Your task to perform on an android device: Play the last video I watched on Youtube Image 0: 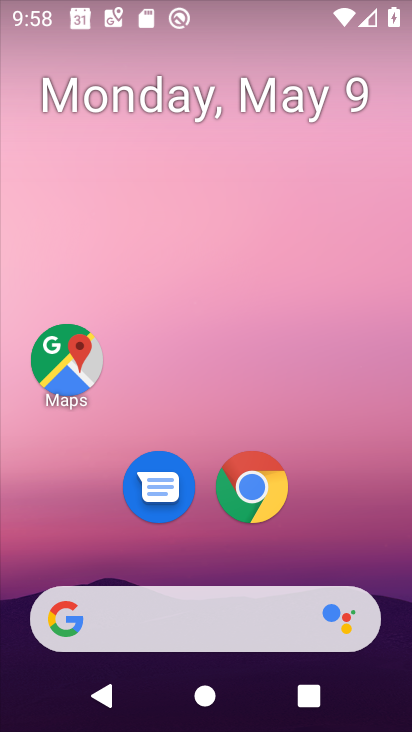
Step 0: drag from (360, 516) to (276, 0)
Your task to perform on an android device: Play the last video I watched on Youtube Image 1: 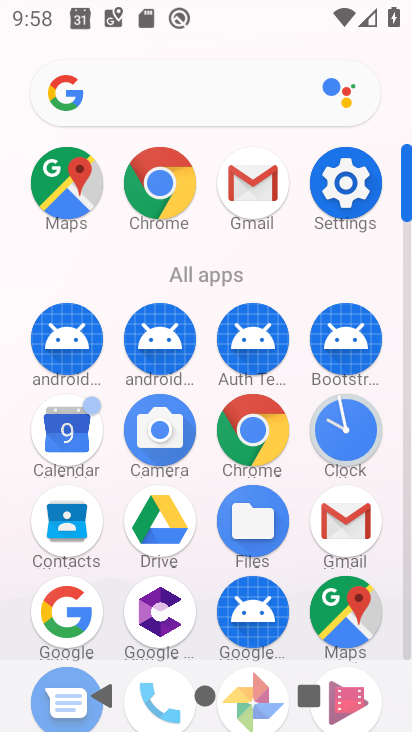
Step 1: drag from (25, 588) to (15, 222)
Your task to perform on an android device: Play the last video I watched on Youtube Image 2: 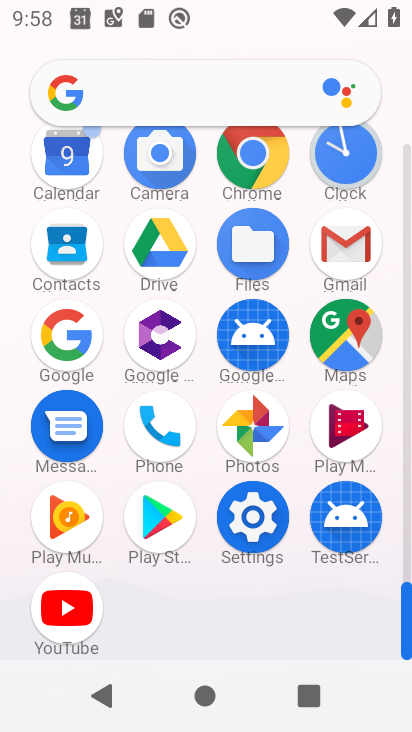
Step 2: click (68, 600)
Your task to perform on an android device: Play the last video I watched on Youtube Image 3: 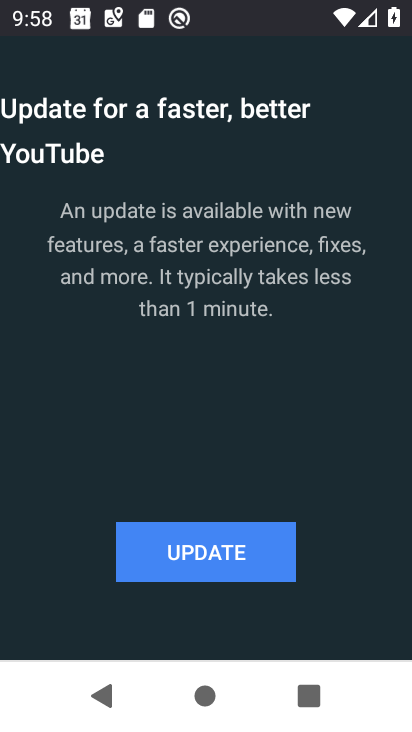
Step 3: click (180, 542)
Your task to perform on an android device: Play the last video I watched on Youtube Image 4: 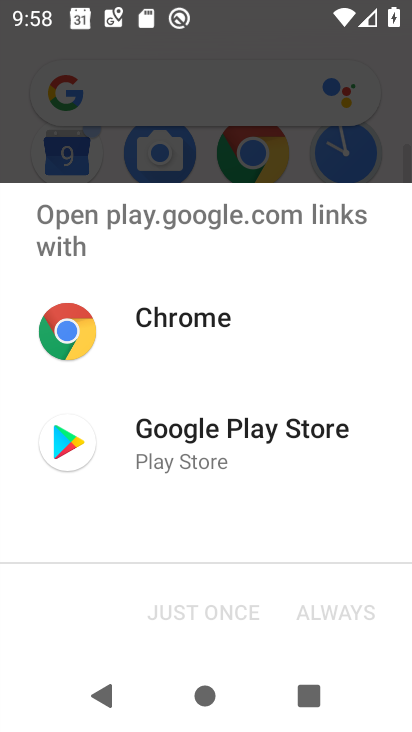
Step 4: click (218, 441)
Your task to perform on an android device: Play the last video I watched on Youtube Image 5: 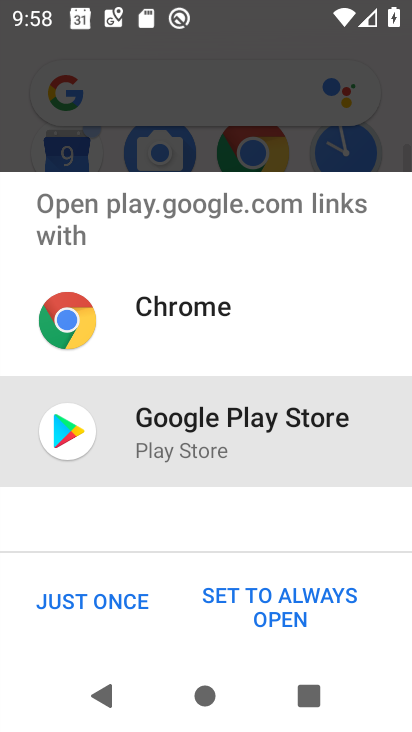
Step 5: click (49, 609)
Your task to perform on an android device: Play the last video I watched on Youtube Image 6: 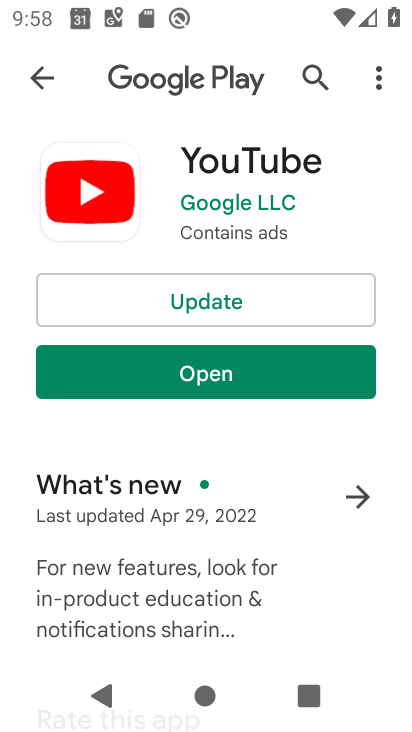
Step 6: click (189, 276)
Your task to perform on an android device: Play the last video I watched on Youtube Image 7: 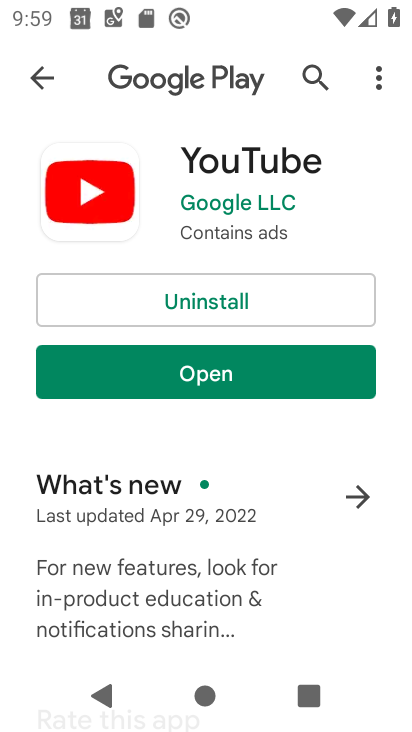
Step 7: click (242, 386)
Your task to perform on an android device: Play the last video I watched on Youtube Image 8: 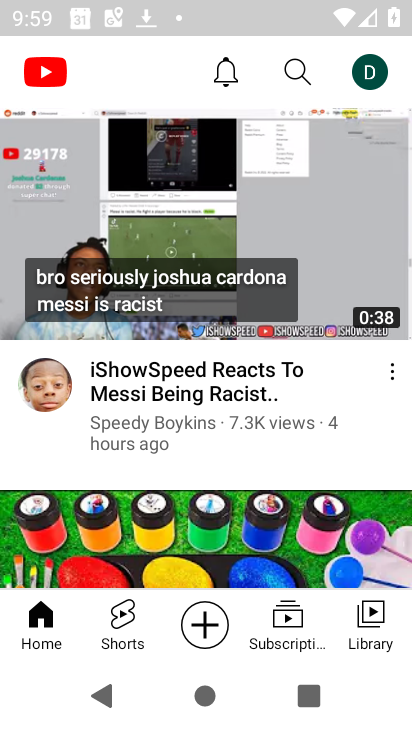
Step 8: click (283, 621)
Your task to perform on an android device: Play the last video I watched on Youtube Image 9: 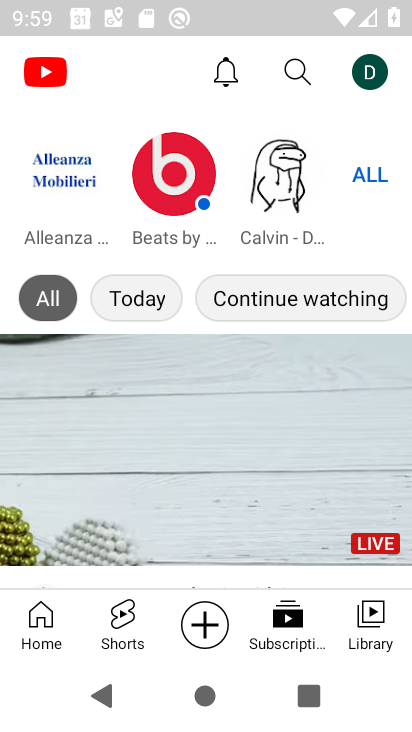
Step 9: click (370, 648)
Your task to perform on an android device: Play the last video I watched on Youtube Image 10: 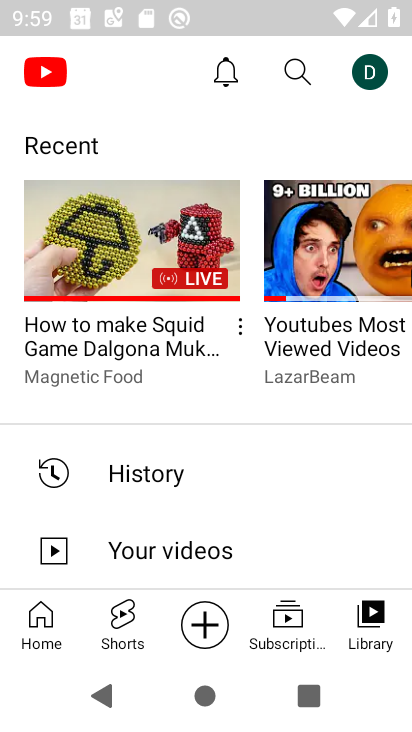
Step 10: click (164, 269)
Your task to perform on an android device: Play the last video I watched on Youtube Image 11: 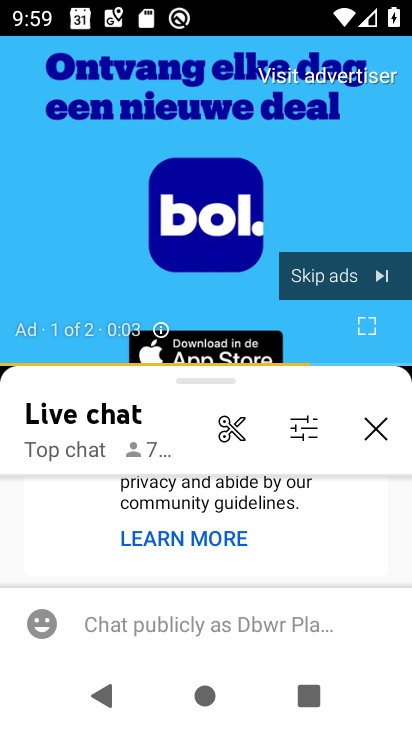
Step 11: click (349, 265)
Your task to perform on an android device: Play the last video I watched on Youtube Image 12: 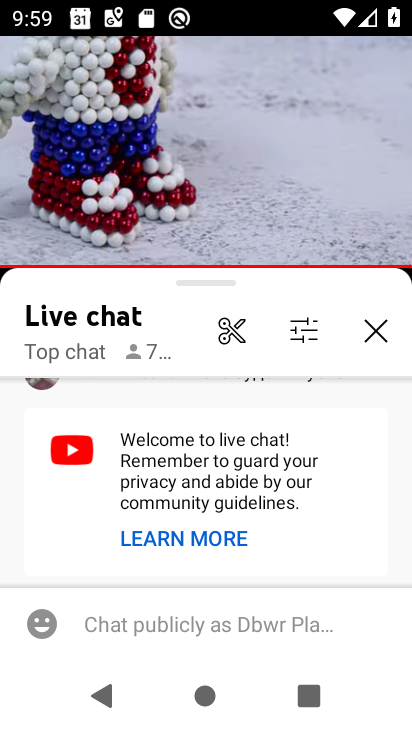
Step 12: task complete